Your task to perform on an android device: Show the shopping cart on target.com. Image 0: 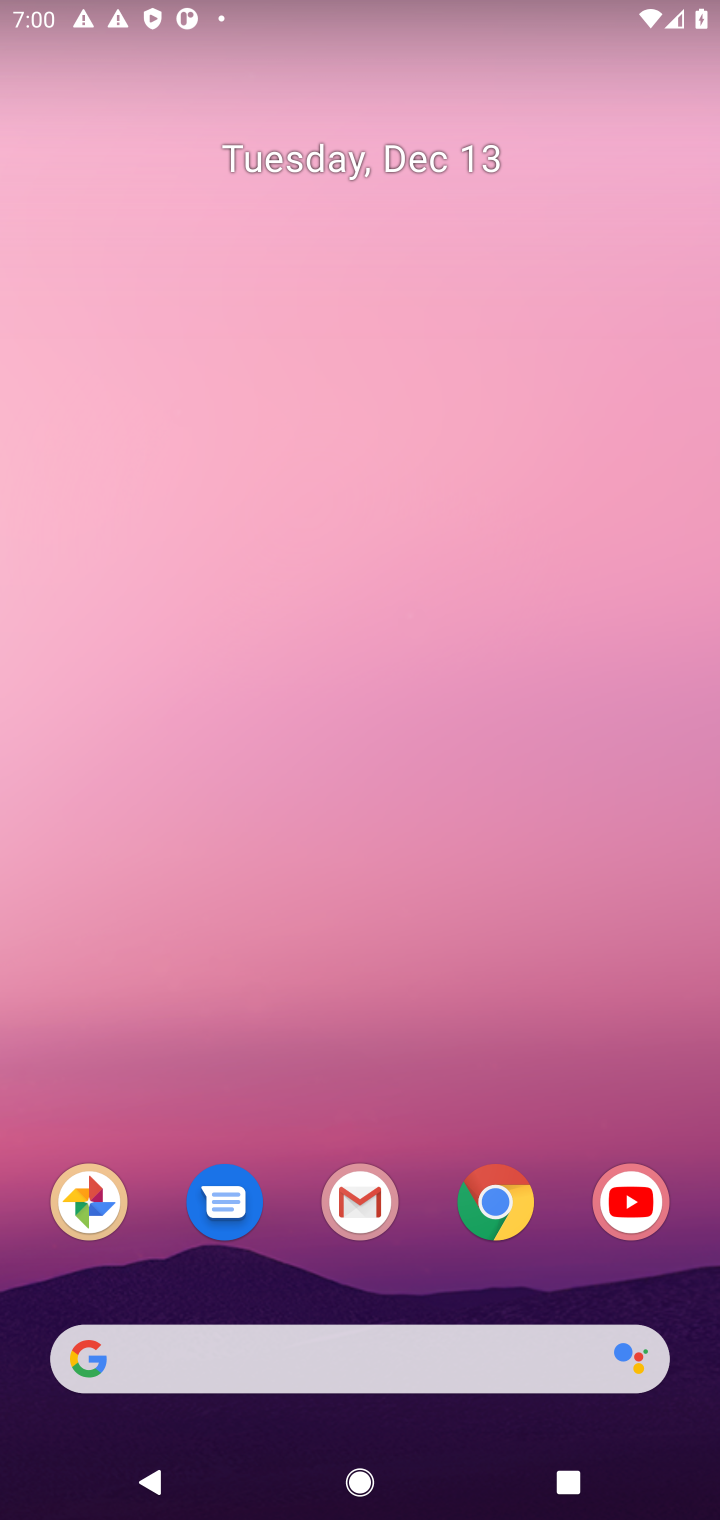
Step 0: click (492, 1219)
Your task to perform on an android device: Show the shopping cart on target.com. Image 1: 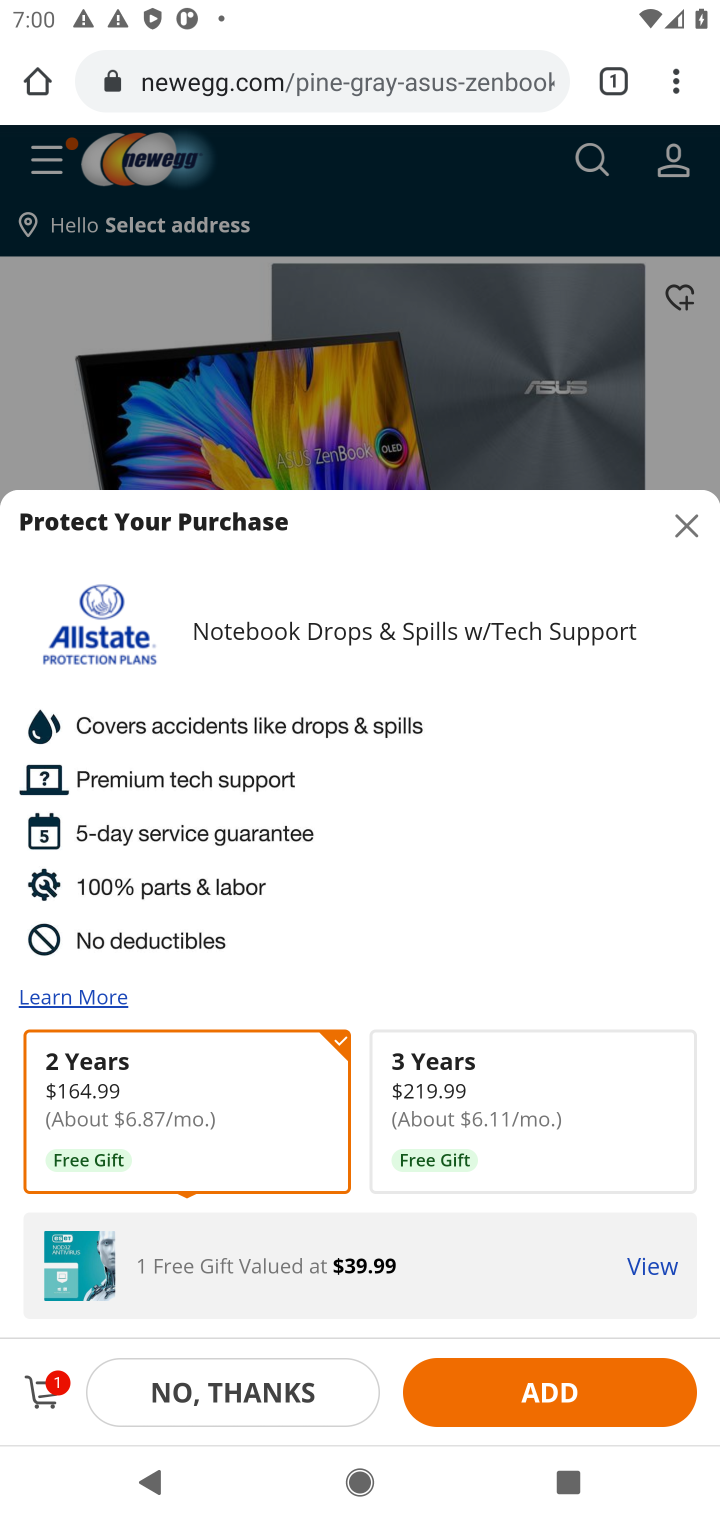
Step 1: click (286, 90)
Your task to perform on an android device: Show the shopping cart on target.com. Image 2: 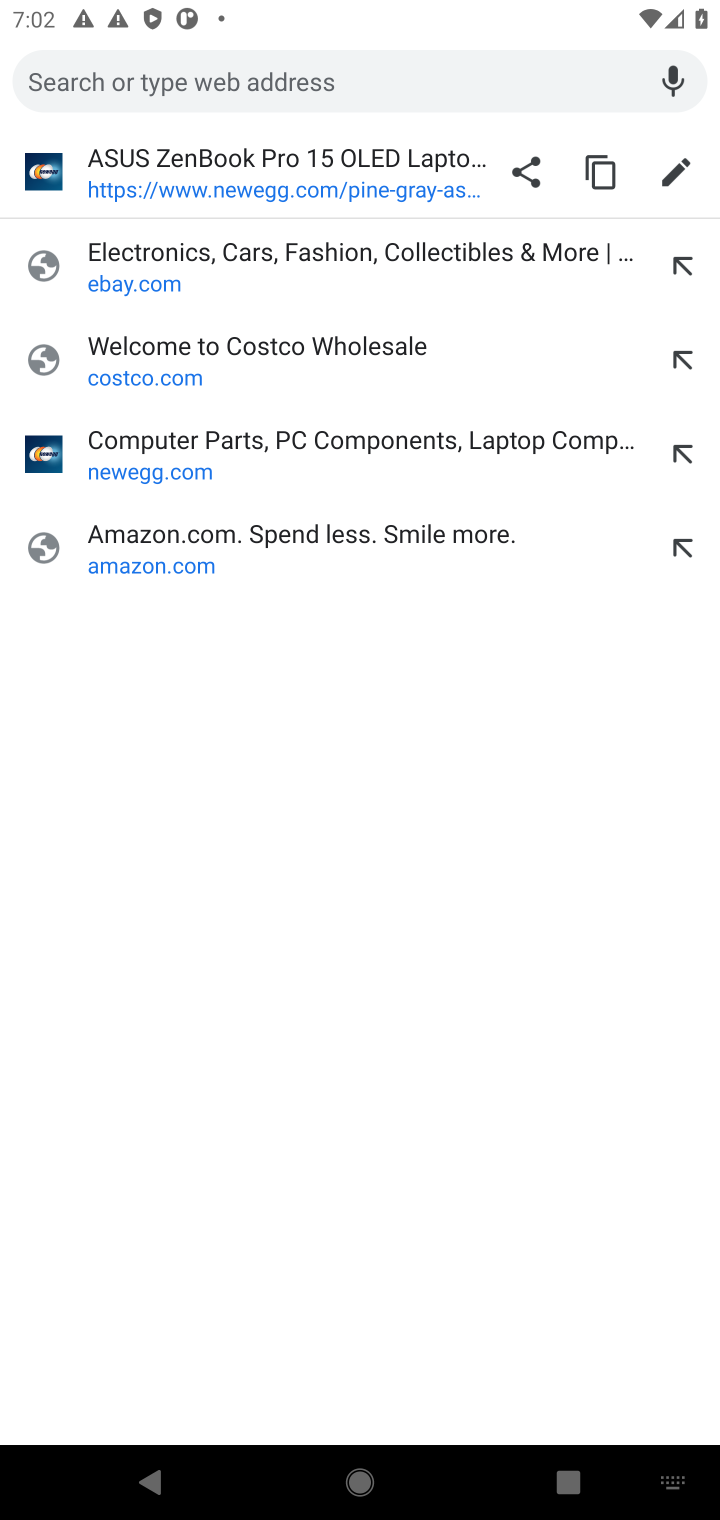
Step 2: type "target.com"
Your task to perform on an android device: Show the shopping cart on target.com. Image 3: 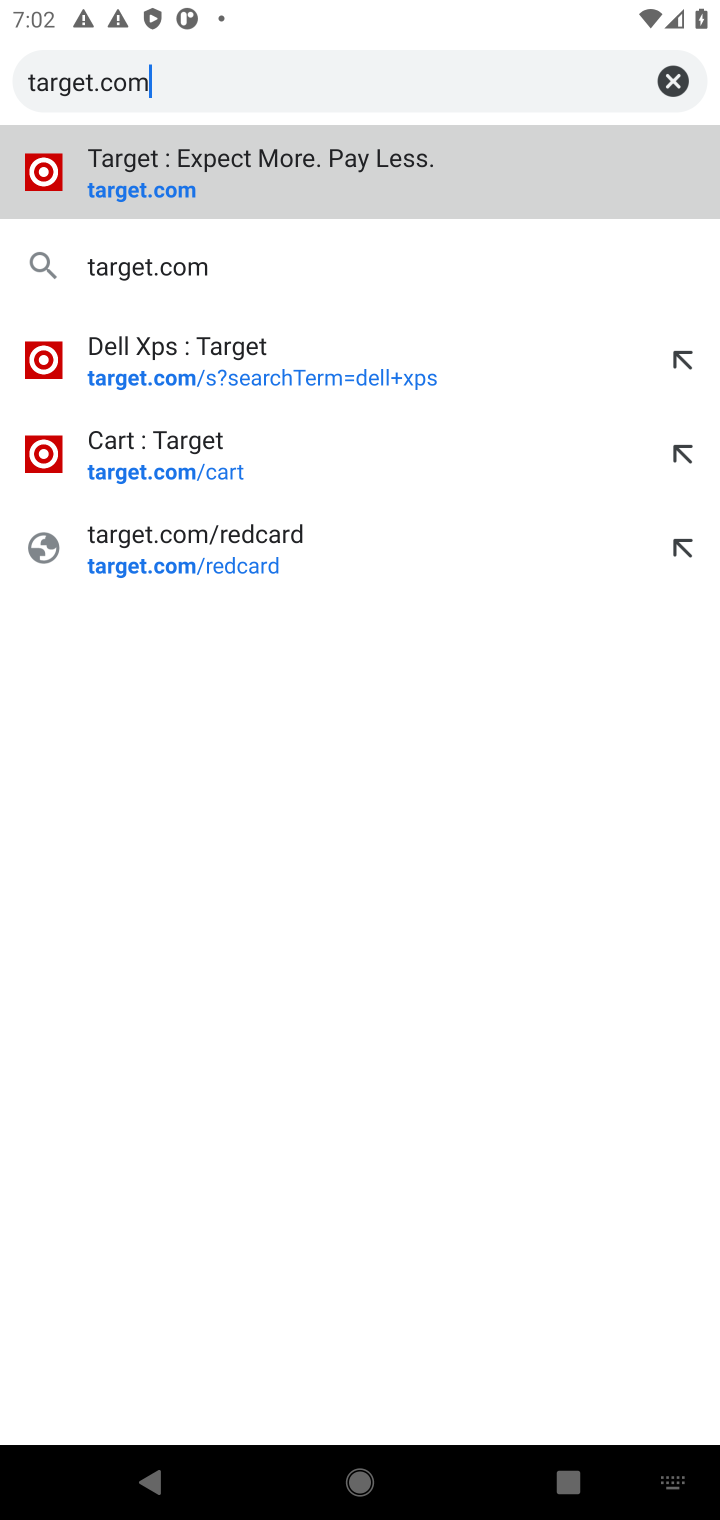
Step 3: click (129, 189)
Your task to perform on an android device: Show the shopping cart on target.com. Image 4: 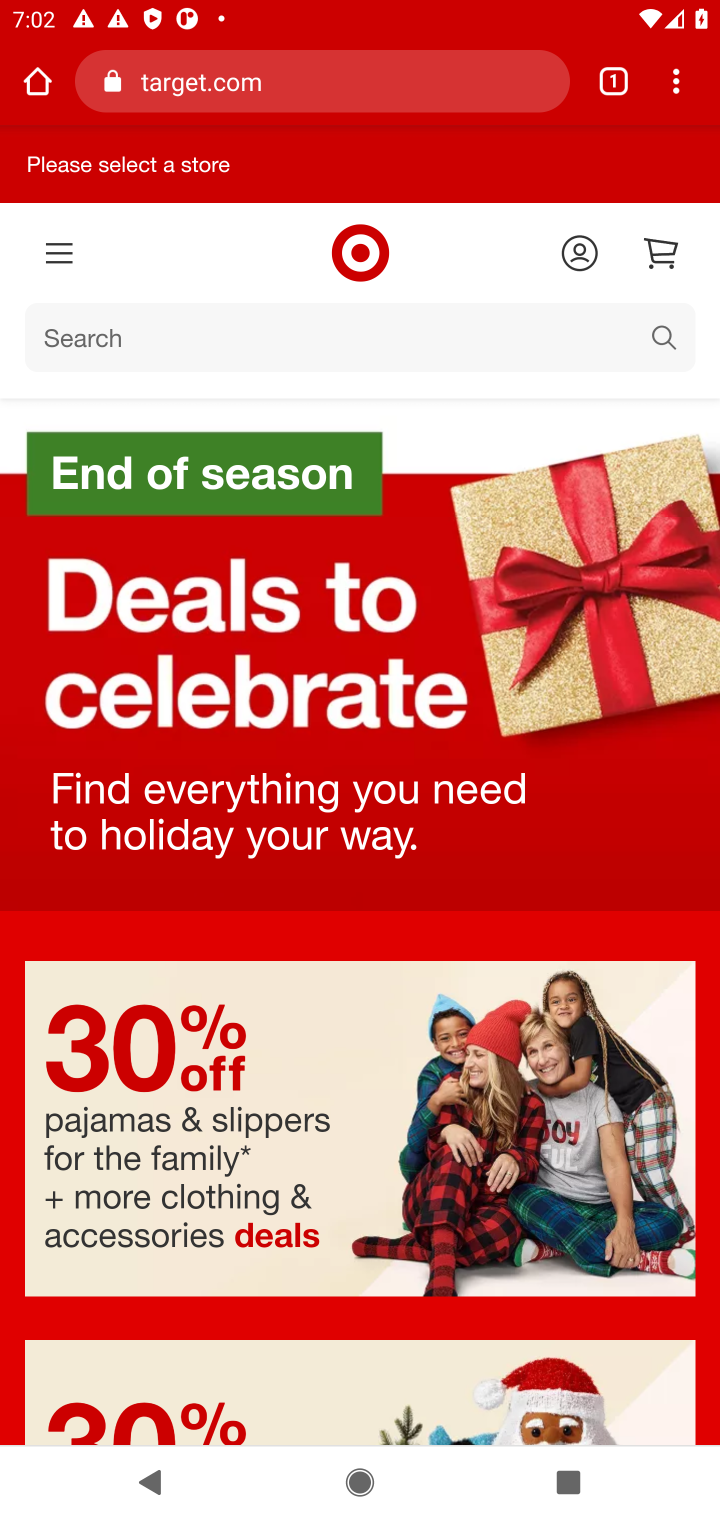
Step 4: click (670, 254)
Your task to perform on an android device: Show the shopping cart on target.com. Image 5: 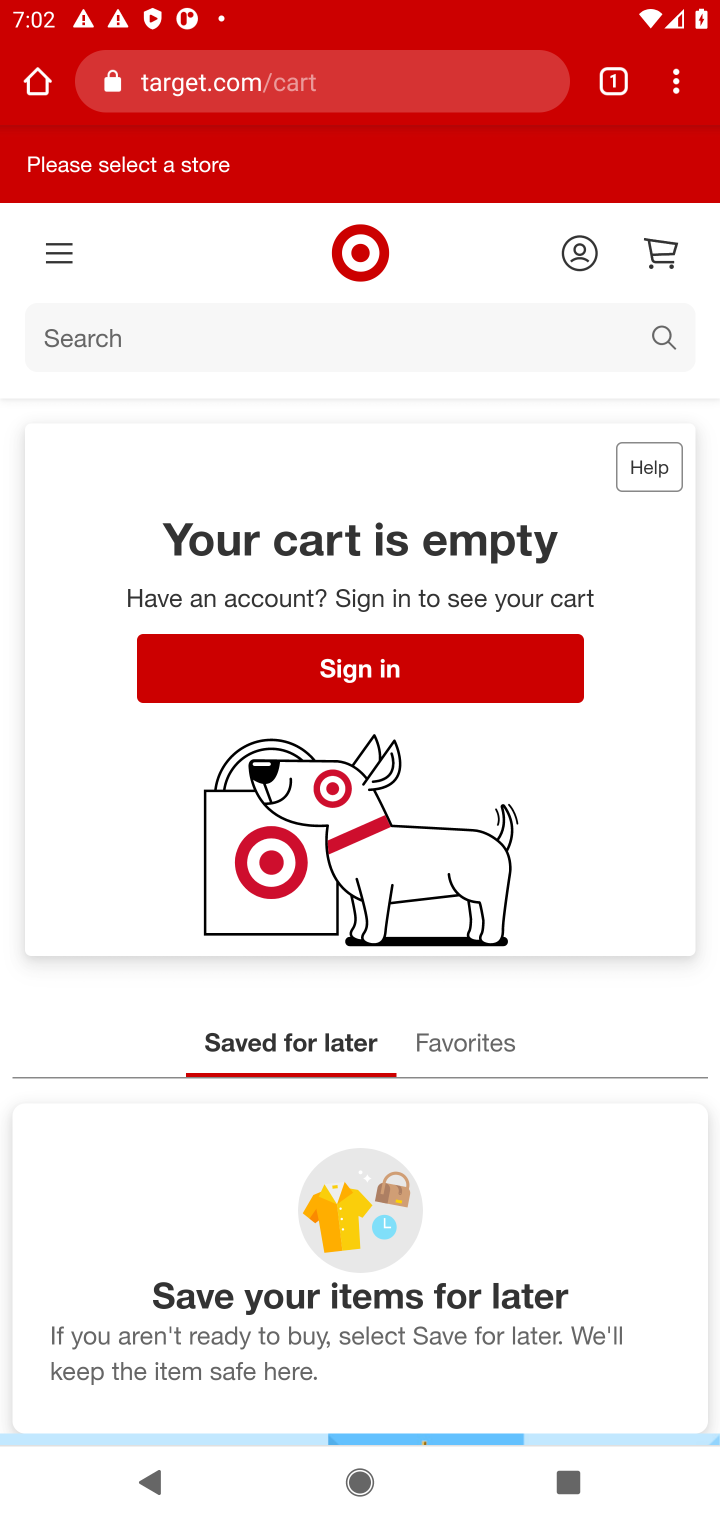
Step 5: task complete